Your task to perform on an android device: Is it going to rain today? Image 0: 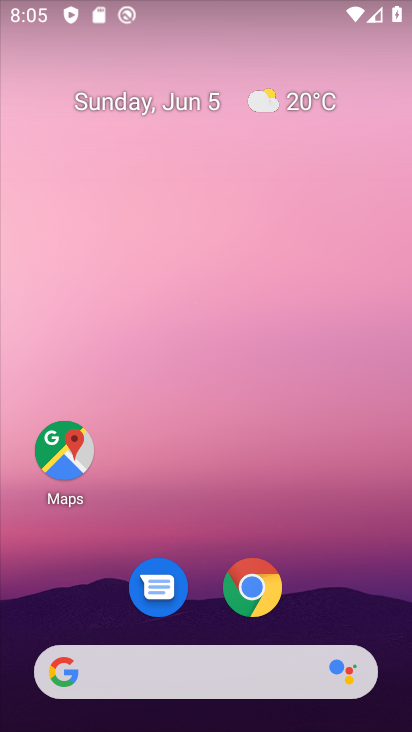
Step 0: drag from (212, 525) to (237, 43)
Your task to perform on an android device: Is it going to rain today? Image 1: 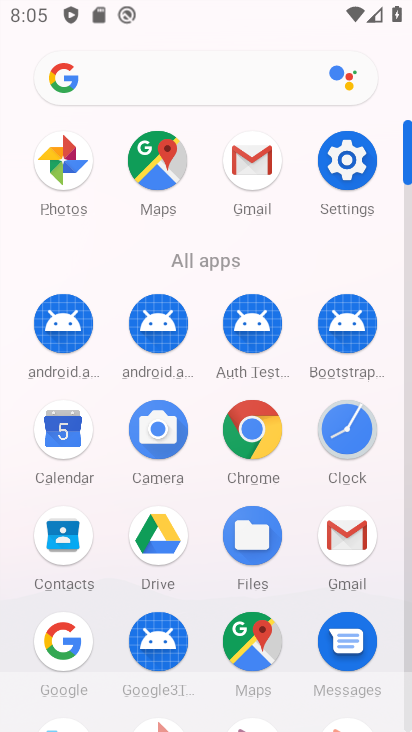
Step 1: click (73, 635)
Your task to perform on an android device: Is it going to rain today? Image 2: 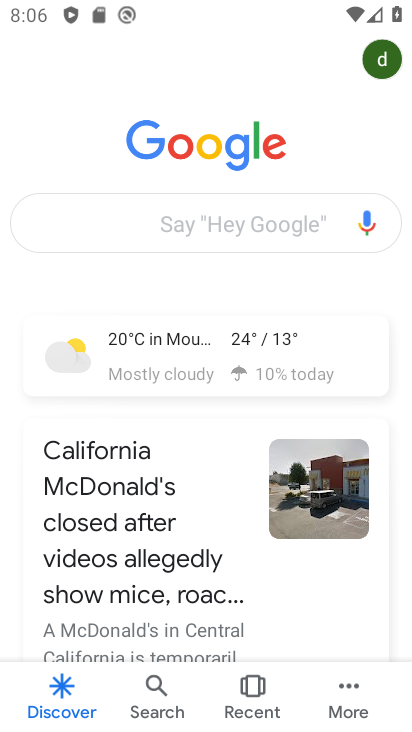
Step 2: click (199, 230)
Your task to perform on an android device: Is it going to rain today? Image 3: 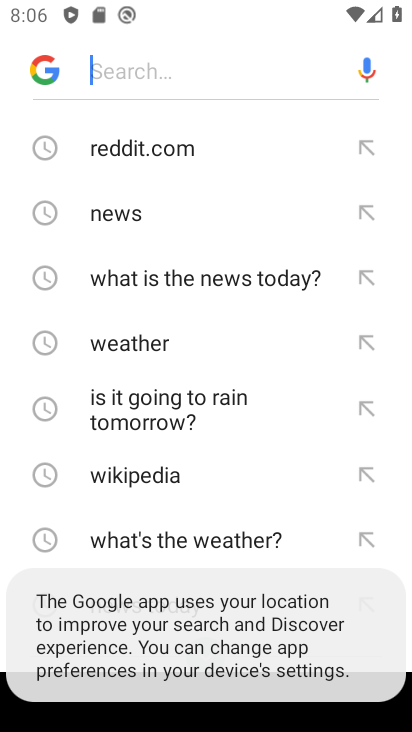
Step 3: click (180, 332)
Your task to perform on an android device: Is it going to rain today? Image 4: 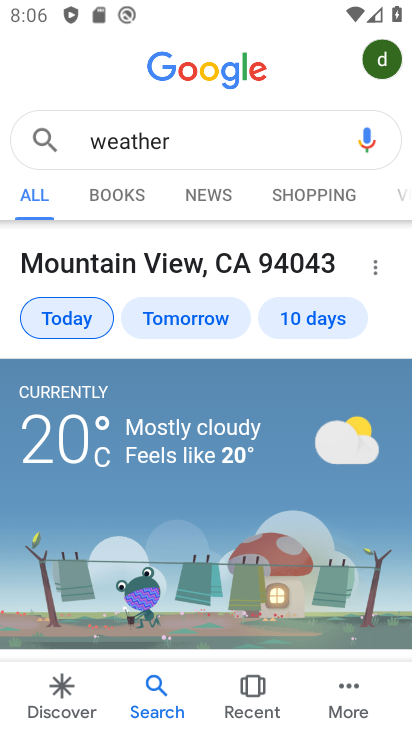
Step 4: task complete